Your task to perform on an android device: Open ESPN.com Image 0: 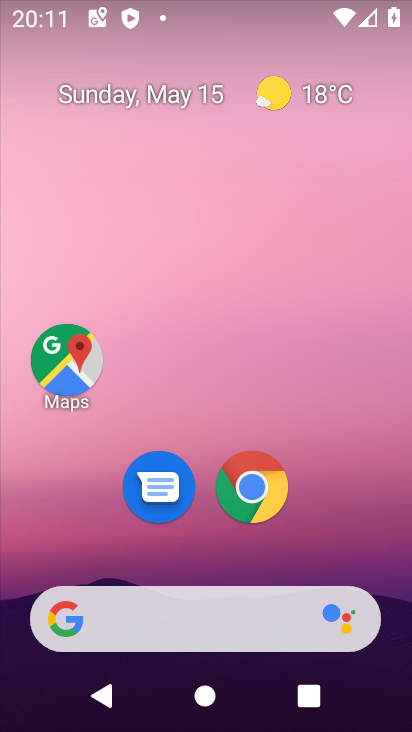
Step 0: click (258, 481)
Your task to perform on an android device: Open ESPN.com Image 1: 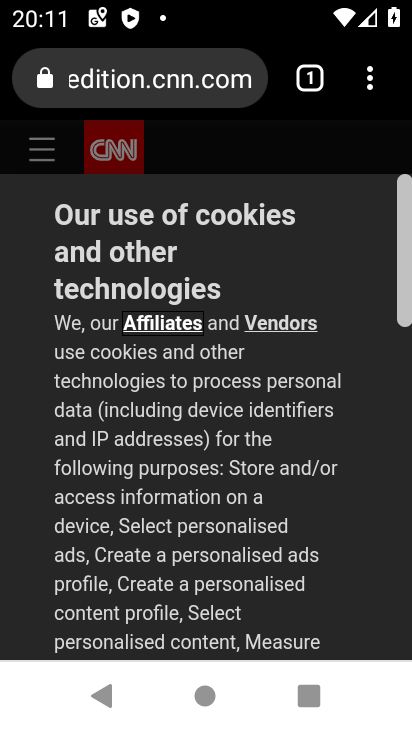
Step 1: click (254, 75)
Your task to perform on an android device: Open ESPN.com Image 2: 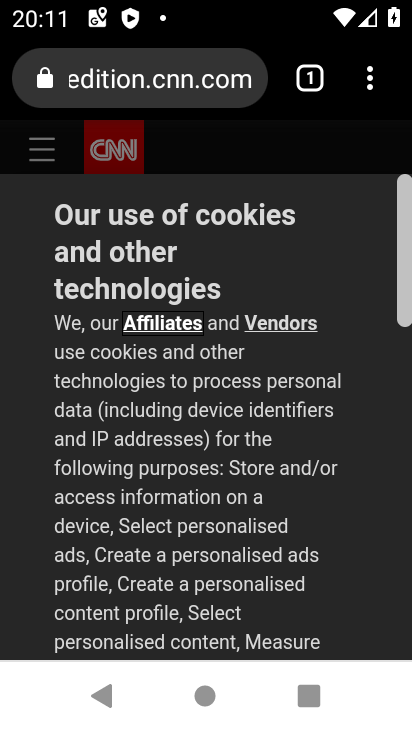
Step 2: click (255, 84)
Your task to perform on an android device: Open ESPN.com Image 3: 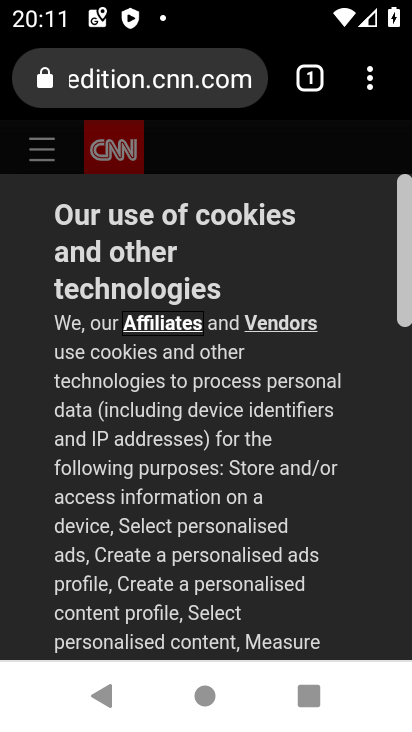
Step 3: click (243, 82)
Your task to perform on an android device: Open ESPN.com Image 4: 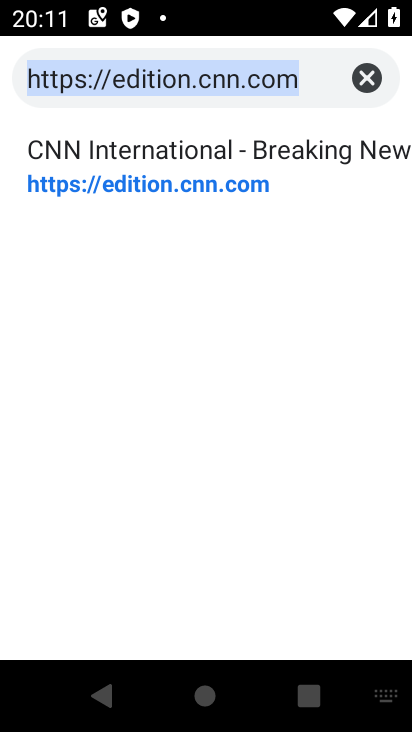
Step 4: click (355, 78)
Your task to perform on an android device: Open ESPN.com Image 5: 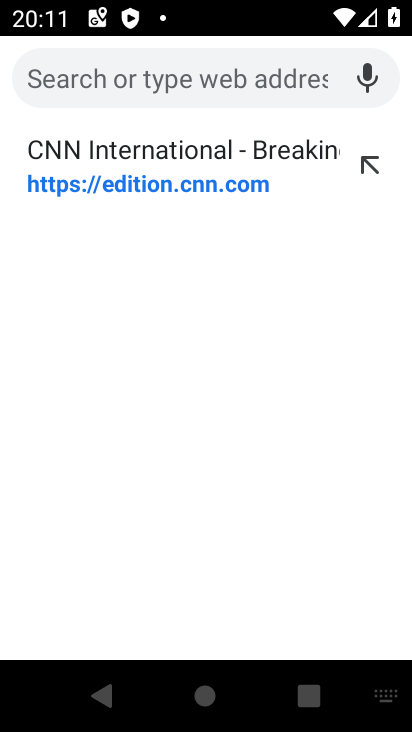
Step 5: type " ESPN.com"
Your task to perform on an android device: Open ESPN.com Image 6: 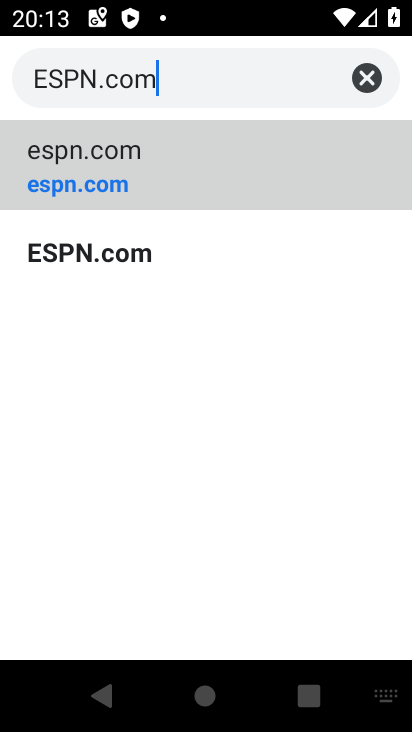
Step 6: click (78, 244)
Your task to perform on an android device: Open ESPN.com Image 7: 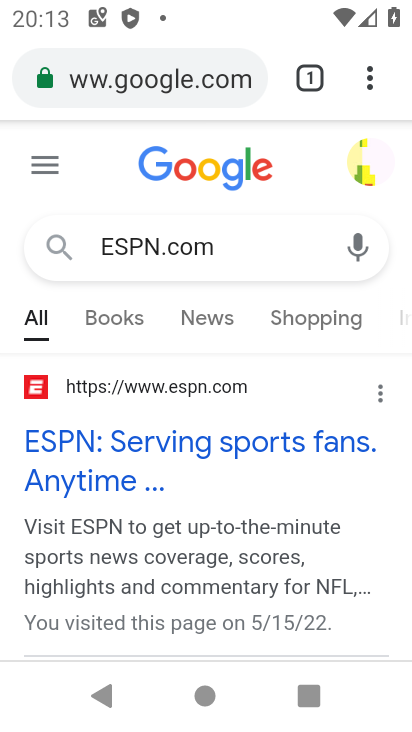
Step 7: task complete